Your task to perform on an android device: create a new album in the google photos Image 0: 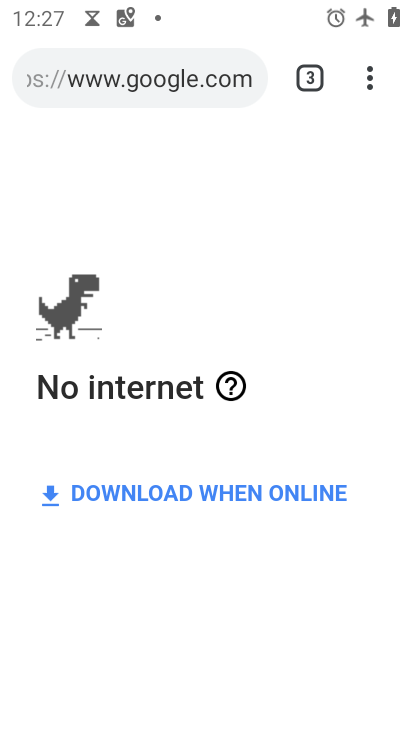
Step 0: press home button
Your task to perform on an android device: create a new album in the google photos Image 1: 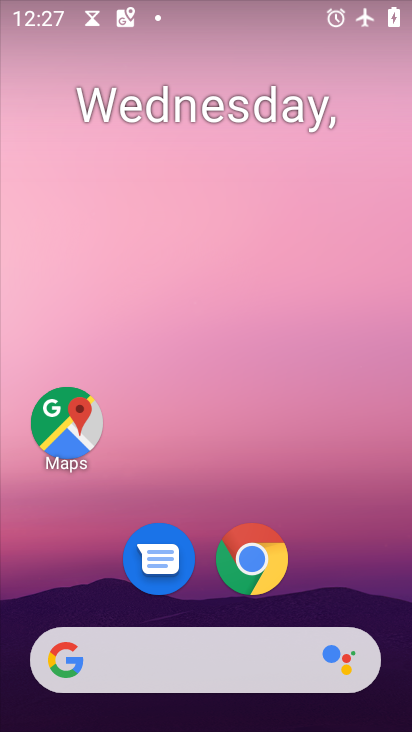
Step 1: drag from (354, 547) to (405, 61)
Your task to perform on an android device: create a new album in the google photos Image 2: 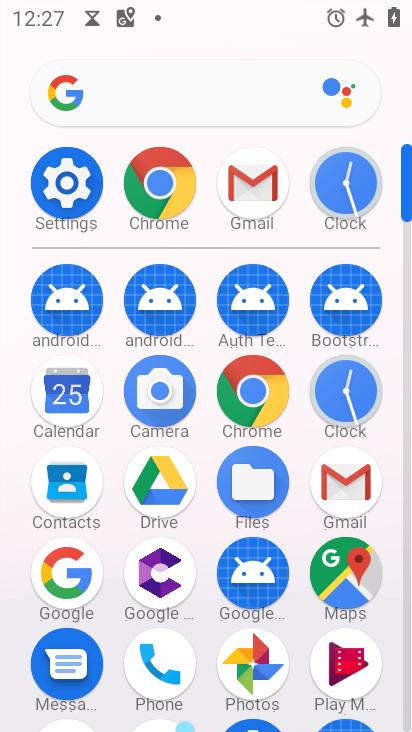
Step 2: click (250, 649)
Your task to perform on an android device: create a new album in the google photos Image 3: 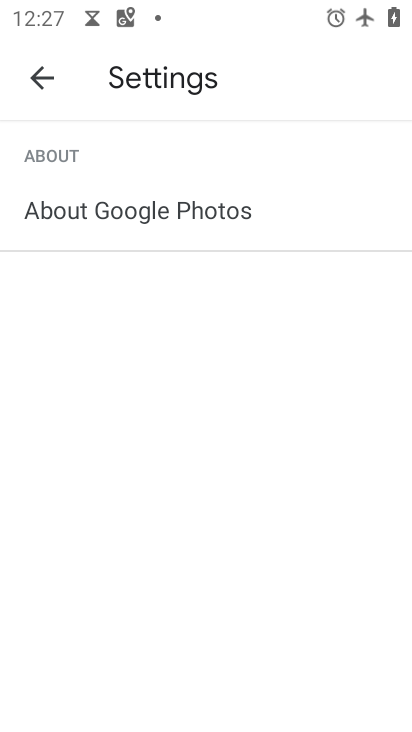
Step 3: click (32, 69)
Your task to perform on an android device: create a new album in the google photos Image 4: 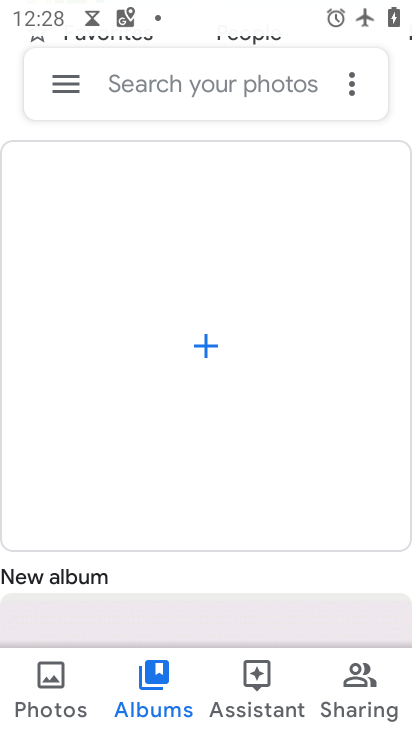
Step 4: drag from (261, 579) to (277, 255)
Your task to perform on an android device: create a new album in the google photos Image 5: 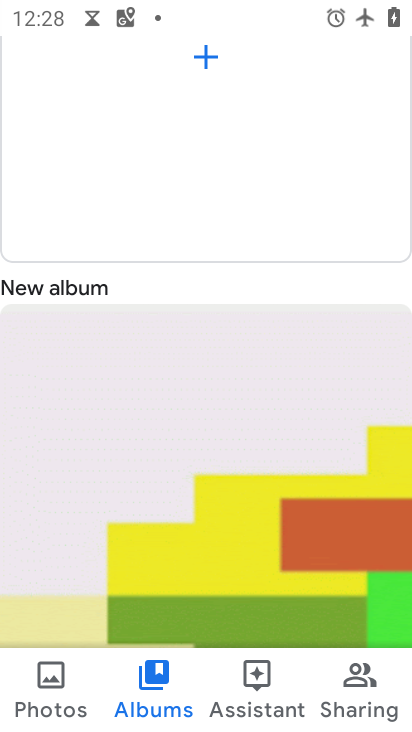
Step 5: click (207, 68)
Your task to perform on an android device: create a new album in the google photos Image 6: 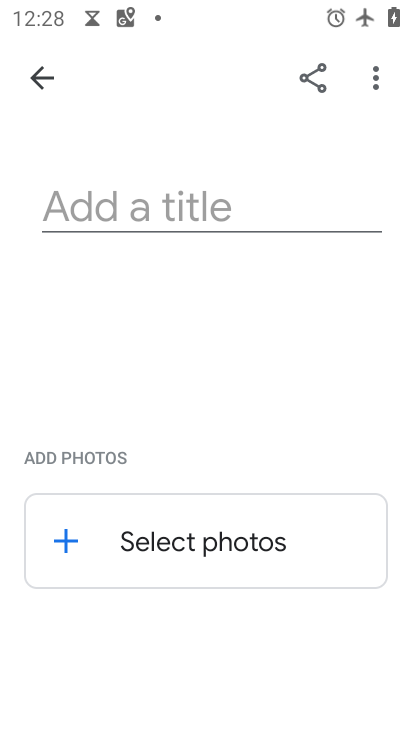
Step 6: click (175, 214)
Your task to perform on an android device: create a new album in the google photos Image 7: 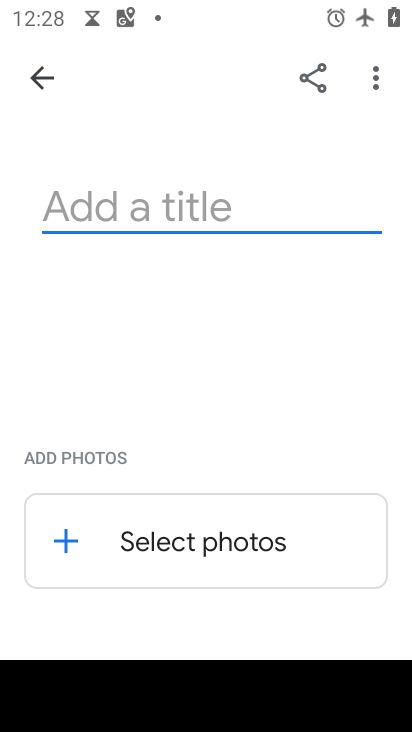
Step 7: type "teyeye"
Your task to perform on an android device: create a new album in the google photos Image 8: 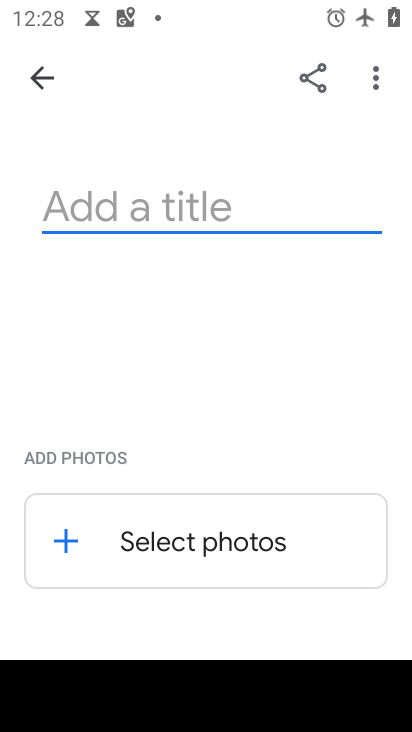
Step 8: click (249, 553)
Your task to perform on an android device: create a new album in the google photos Image 9: 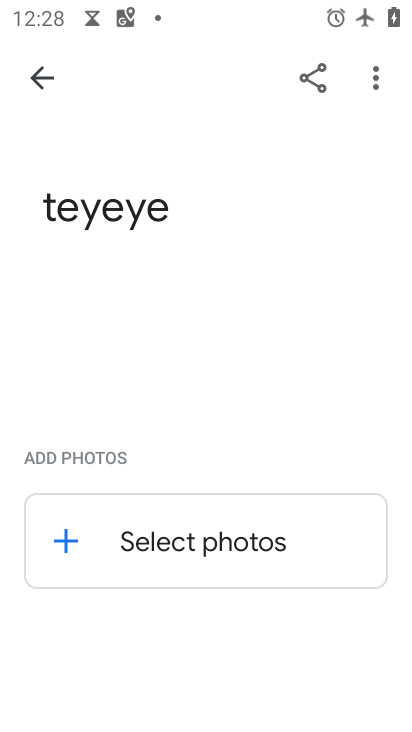
Step 9: click (249, 553)
Your task to perform on an android device: create a new album in the google photos Image 10: 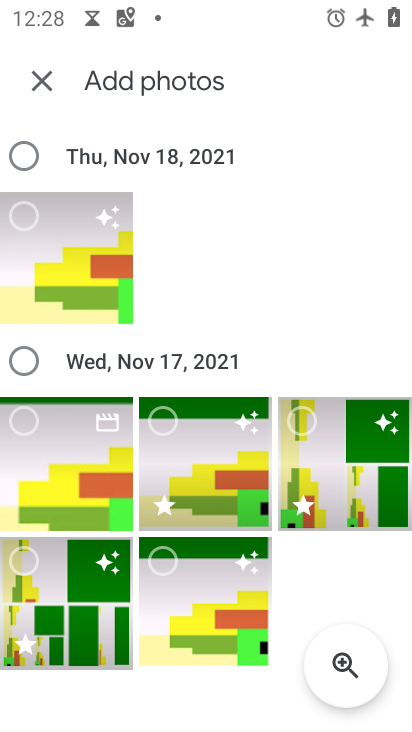
Step 10: click (8, 425)
Your task to perform on an android device: create a new album in the google photos Image 11: 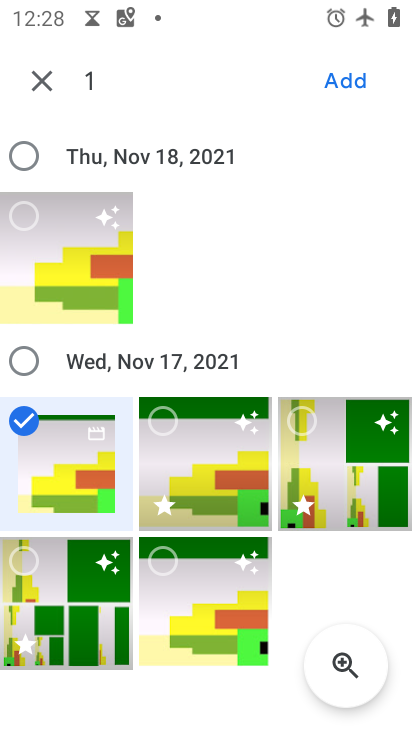
Step 11: click (161, 434)
Your task to perform on an android device: create a new album in the google photos Image 12: 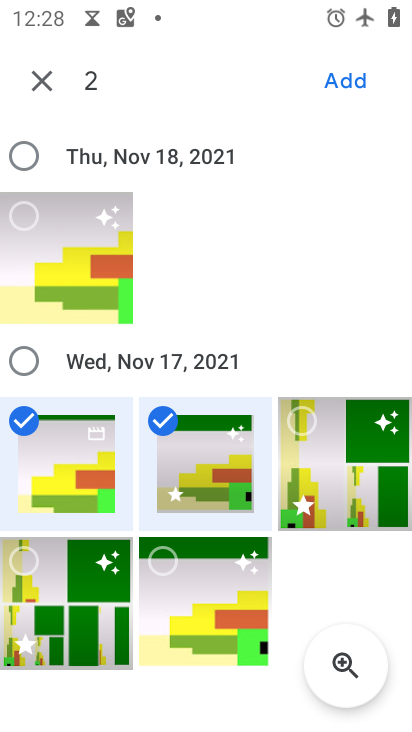
Step 12: click (350, 75)
Your task to perform on an android device: create a new album in the google photos Image 13: 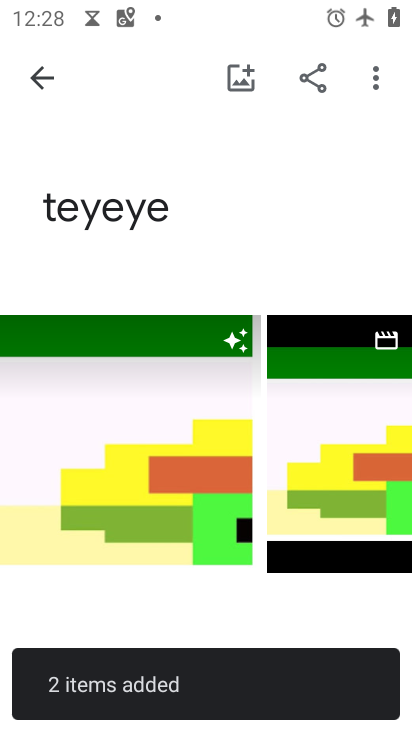
Step 13: task complete